Your task to perform on an android device: Is it going to rain today? Image 0: 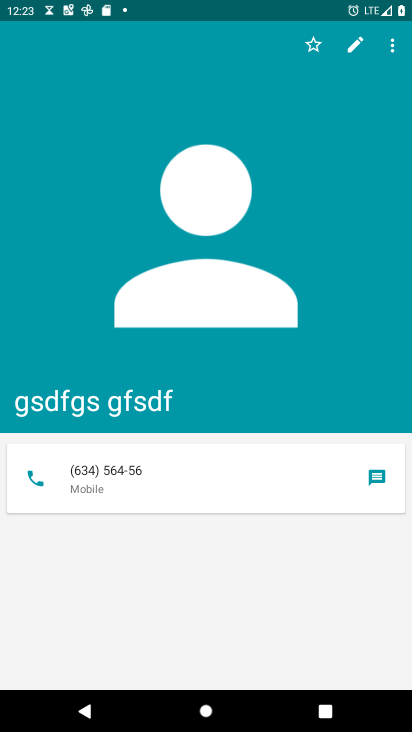
Step 0: press home button
Your task to perform on an android device: Is it going to rain today? Image 1: 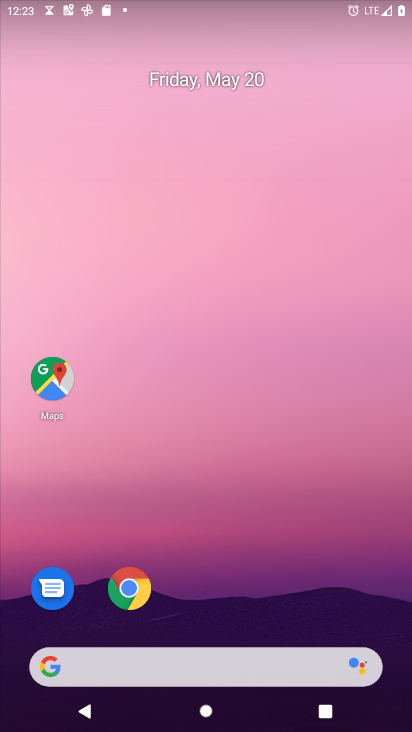
Step 1: drag from (275, 575) to (189, 123)
Your task to perform on an android device: Is it going to rain today? Image 2: 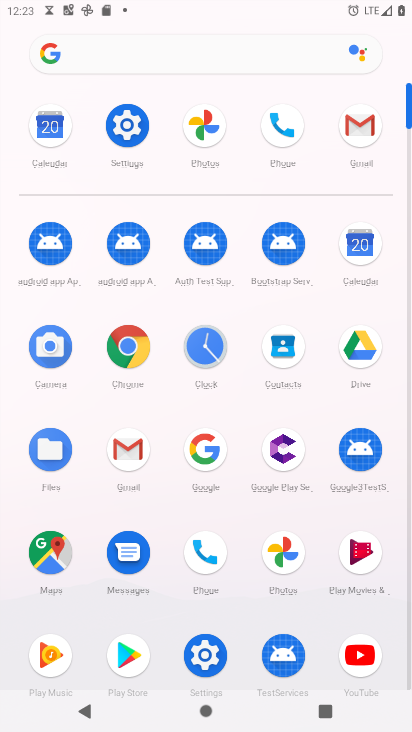
Step 2: click (194, 461)
Your task to perform on an android device: Is it going to rain today? Image 3: 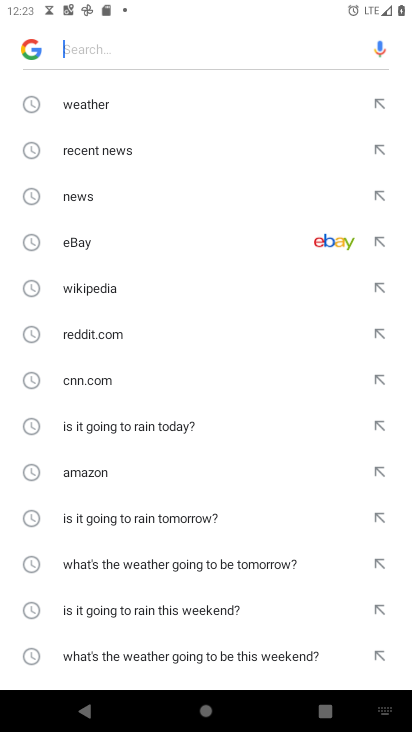
Step 3: click (145, 97)
Your task to perform on an android device: Is it going to rain today? Image 4: 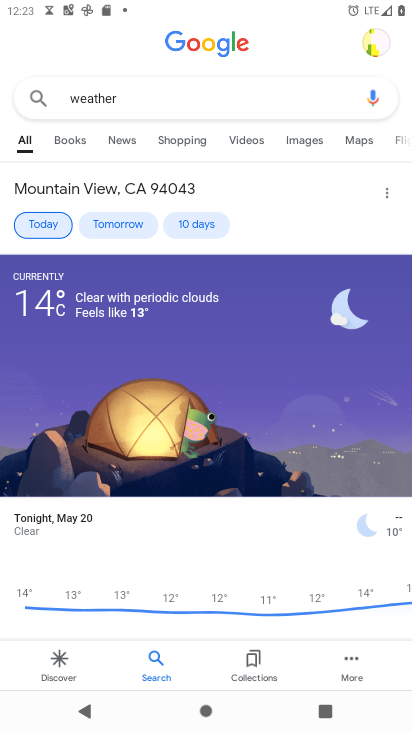
Step 4: task complete